Your task to perform on an android device: toggle notification dots Image 0: 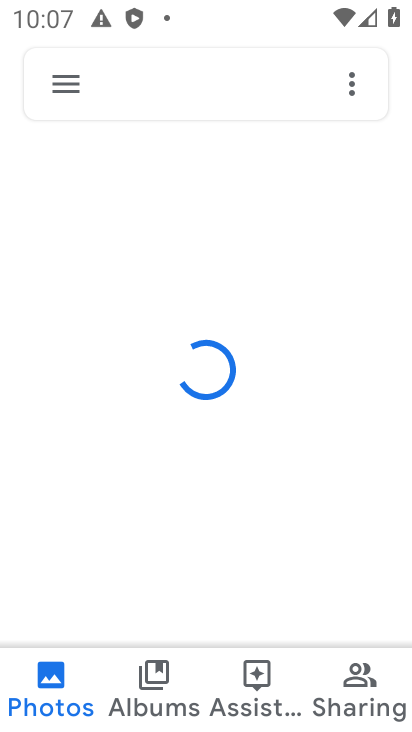
Step 0: press home button
Your task to perform on an android device: toggle notification dots Image 1: 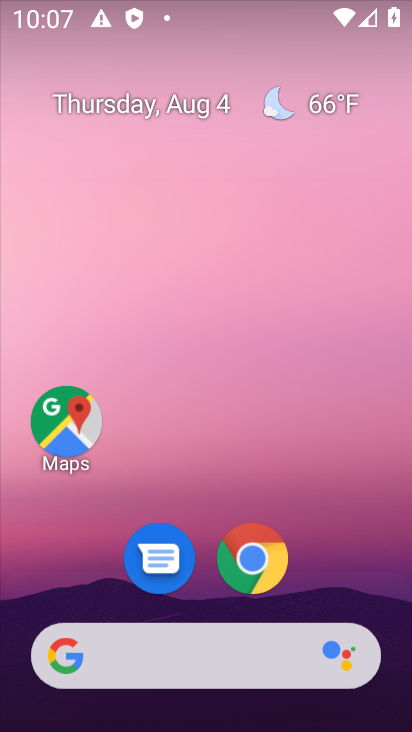
Step 1: drag from (374, 569) to (224, 87)
Your task to perform on an android device: toggle notification dots Image 2: 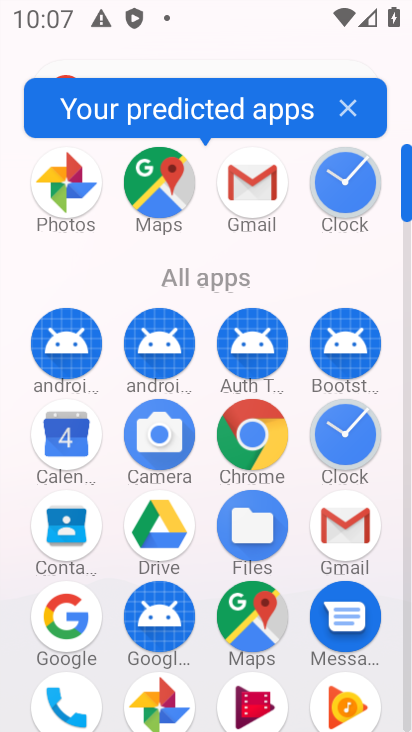
Step 2: drag from (202, 563) to (186, 195)
Your task to perform on an android device: toggle notification dots Image 3: 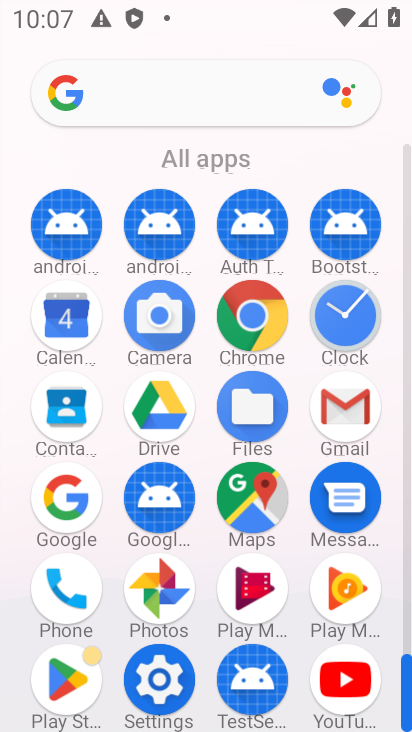
Step 3: click (163, 682)
Your task to perform on an android device: toggle notification dots Image 4: 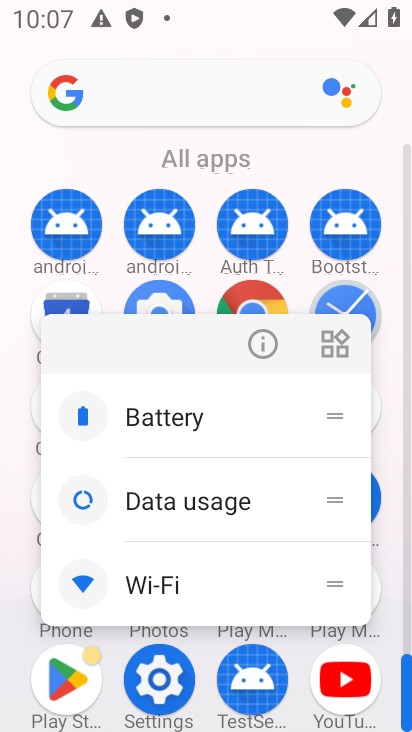
Step 4: click (165, 663)
Your task to perform on an android device: toggle notification dots Image 5: 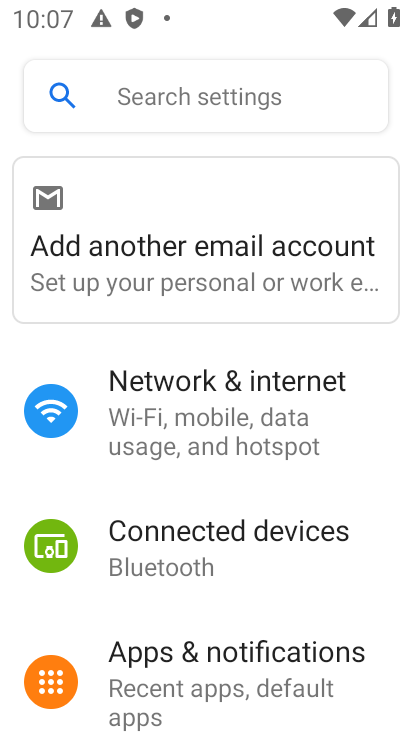
Step 5: click (154, 658)
Your task to perform on an android device: toggle notification dots Image 6: 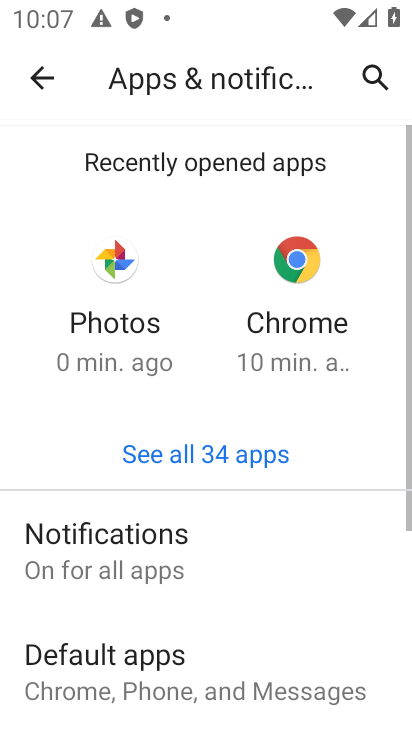
Step 6: click (116, 560)
Your task to perform on an android device: toggle notification dots Image 7: 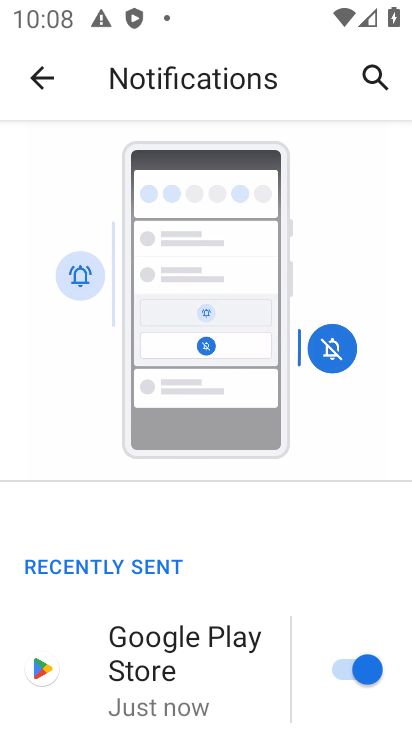
Step 7: drag from (154, 535) to (203, 99)
Your task to perform on an android device: toggle notification dots Image 8: 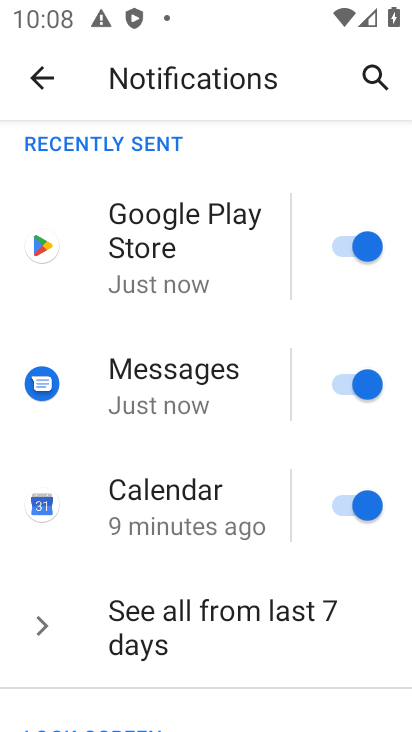
Step 8: drag from (194, 668) to (170, 121)
Your task to perform on an android device: toggle notification dots Image 9: 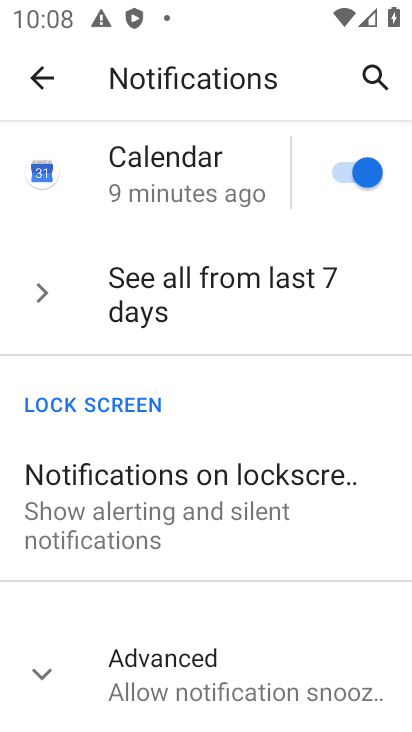
Step 9: click (181, 654)
Your task to perform on an android device: toggle notification dots Image 10: 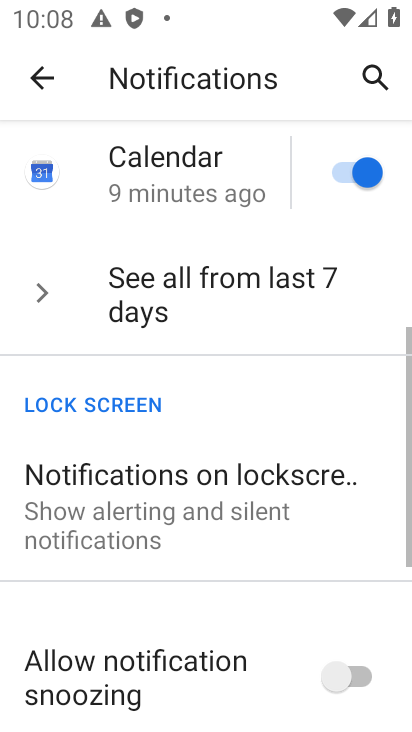
Step 10: drag from (234, 596) to (184, 84)
Your task to perform on an android device: toggle notification dots Image 11: 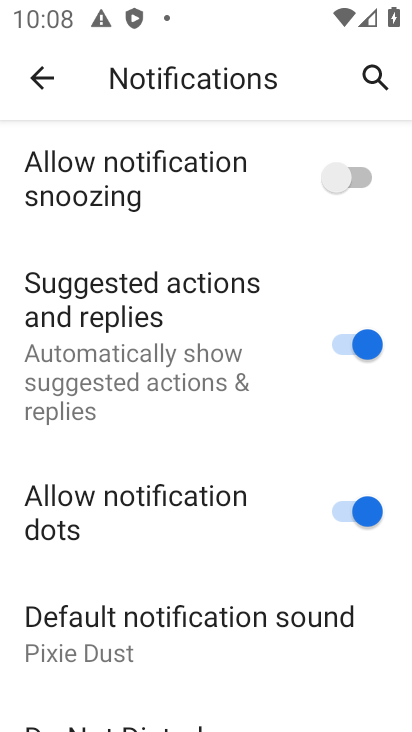
Step 11: click (360, 515)
Your task to perform on an android device: toggle notification dots Image 12: 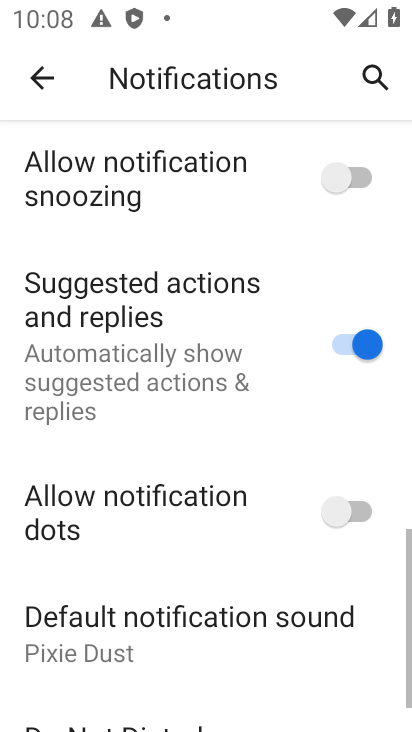
Step 12: task complete